Your task to perform on an android device: delete the emails in spam in the gmail app Image 0: 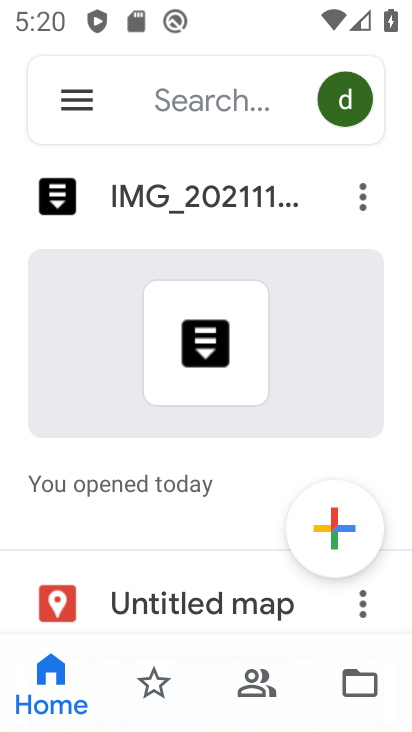
Step 0: press home button
Your task to perform on an android device: delete the emails in spam in the gmail app Image 1: 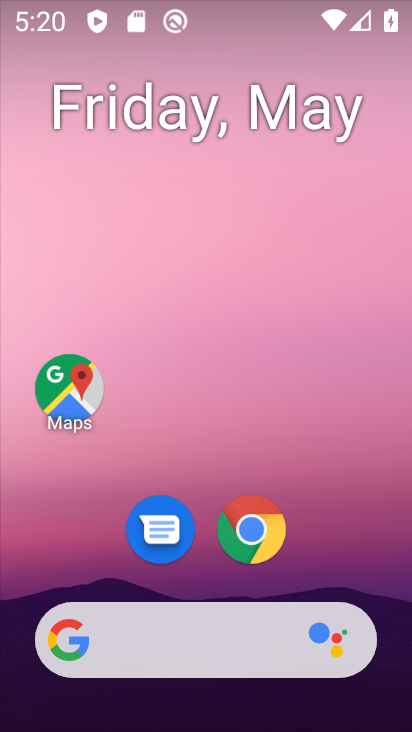
Step 1: drag from (189, 571) to (211, 9)
Your task to perform on an android device: delete the emails in spam in the gmail app Image 2: 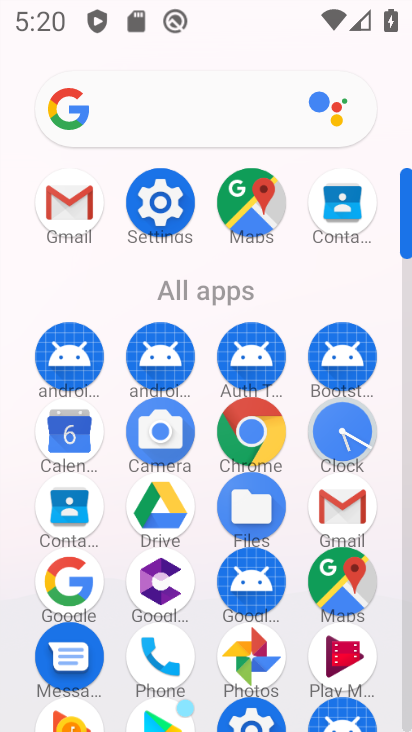
Step 2: click (81, 198)
Your task to perform on an android device: delete the emails in spam in the gmail app Image 3: 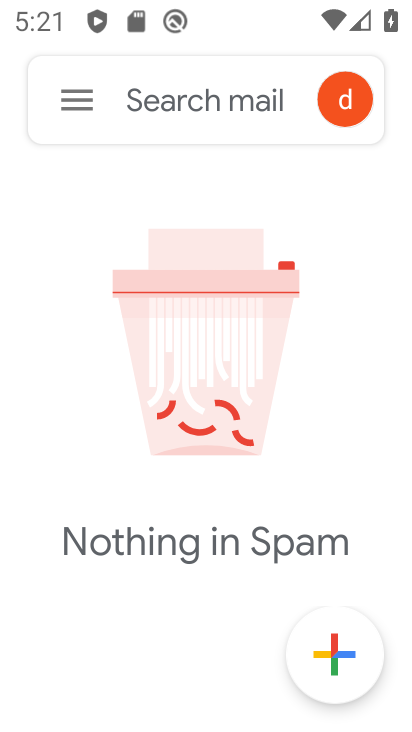
Step 3: task complete